Your task to perform on an android device: open device folders in google photos Image 0: 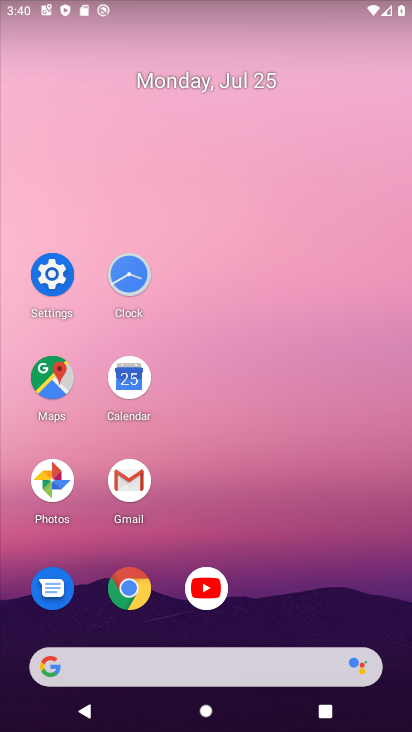
Step 0: click (46, 488)
Your task to perform on an android device: open device folders in google photos Image 1: 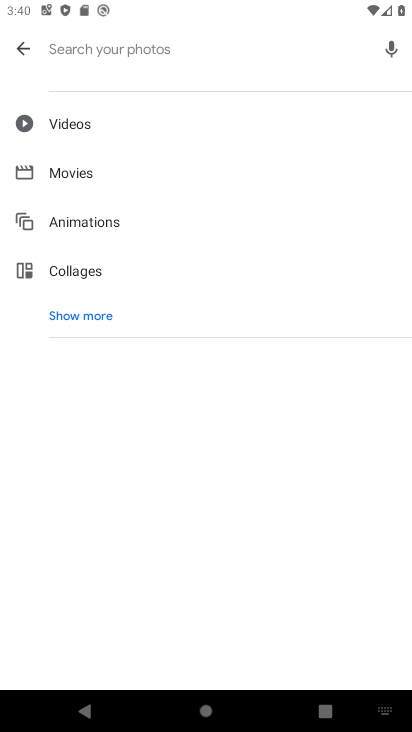
Step 1: click (21, 44)
Your task to perform on an android device: open device folders in google photos Image 2: 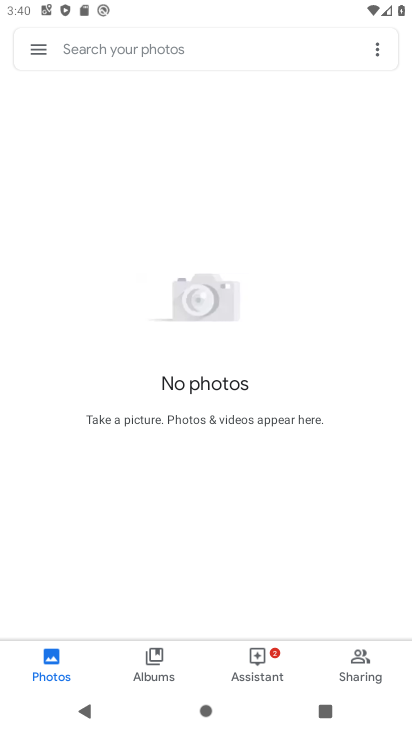
Step 2: click (37, 49)
Your task to perform on an android device: open device folders in google photos Image 3: 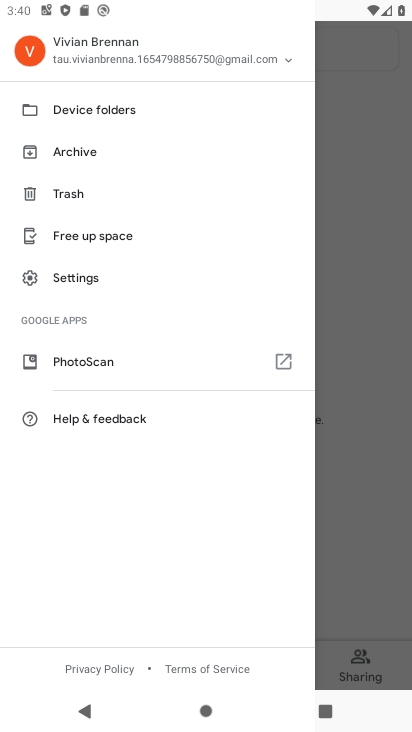
Step 3: click (82, 109)
Your task to perform on an android device: open device folders in google photos Image 4: 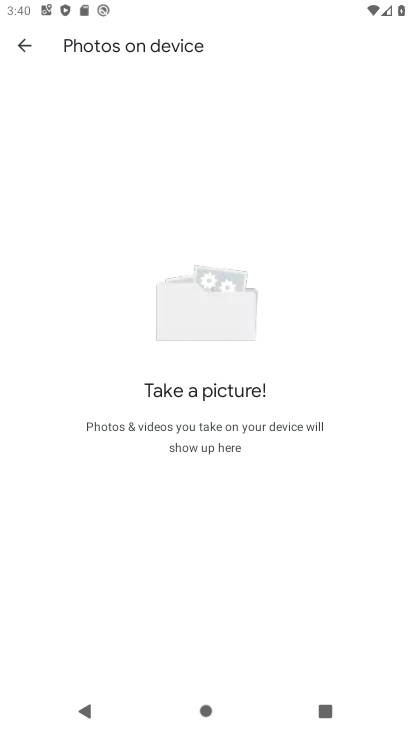
Step 4: task complete